Your task to perform on an android device: turn on the 24-hour format for clock Image 0: 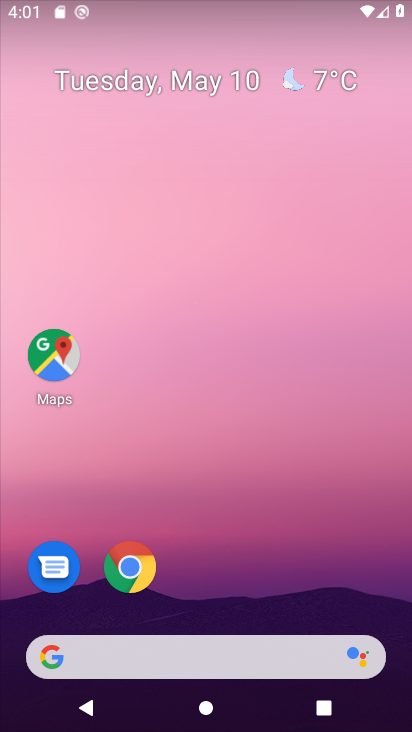
Step 0: drag from (246, 550) to (211, 20)
Your task to perform on an android device: turn on the 24-hour format for clock Image 1: 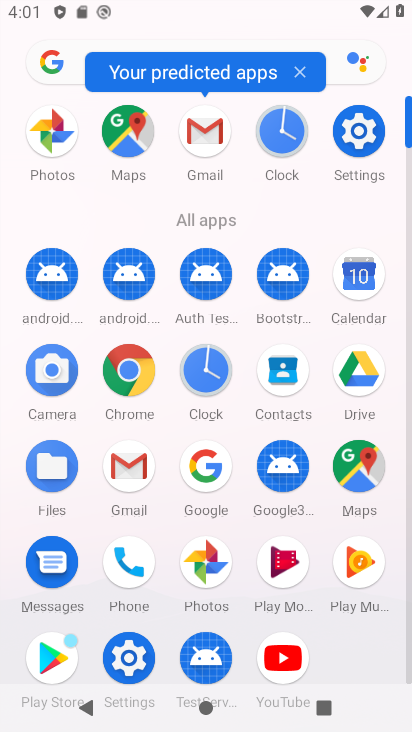
Step 1: click (281, 130)
Your task to perform on an android device: turn on the 24-hour format for clock Image 2: 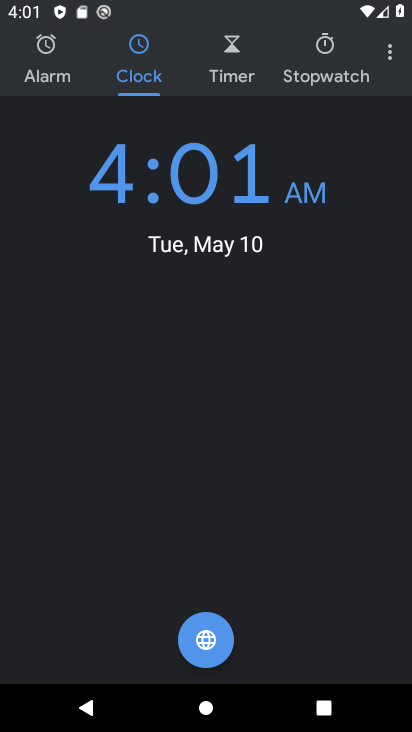
Step 2: click (392, 52)
Your task to perform on an android device: turn on the 24-hour format for clock Image 3: 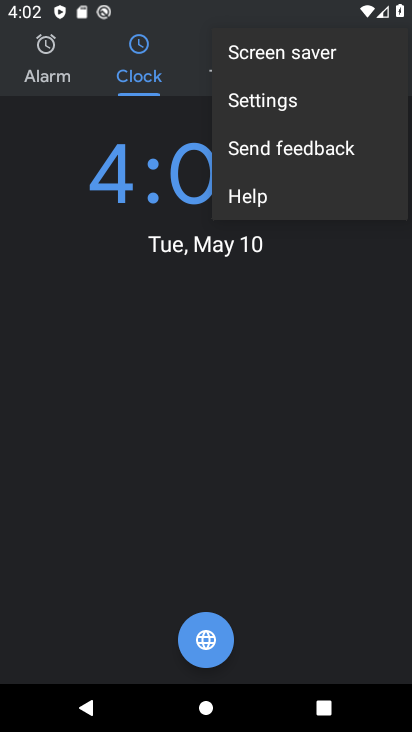
Step 3: click (289, 98)
Your task to perform on an android device: turn on the 24-hour format for clock Image 4: 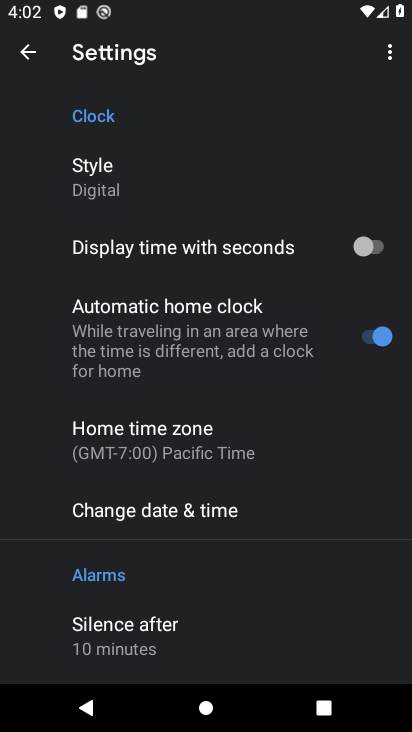
Step 4: click (147, 510)
Your task to perform on an android device: turn on the 24-hour format for clock Image 5: 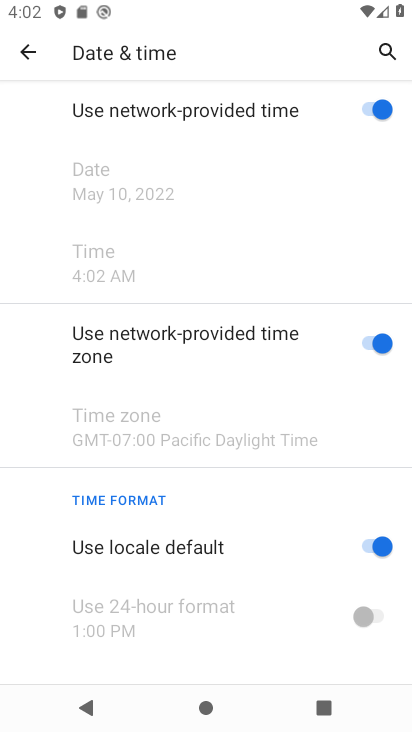
Step 5: click (379, 544)
Your task to perform on an android device: turn on the 24-hour format for clock Image 6: 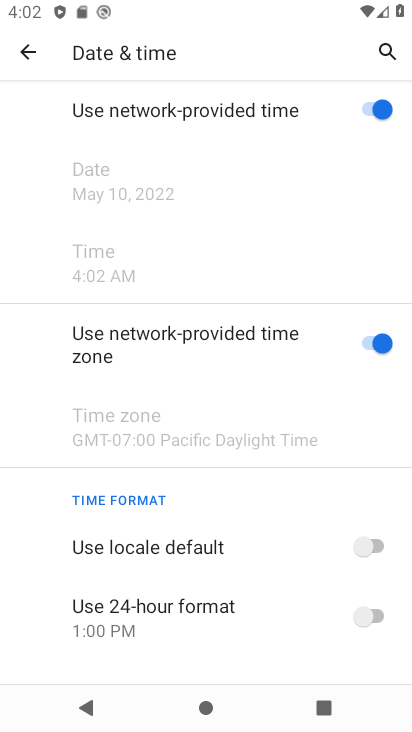
Step 6: click (369, 622)
Your task to perform on an android device: turn on the 24-hour format for clock Image 7: 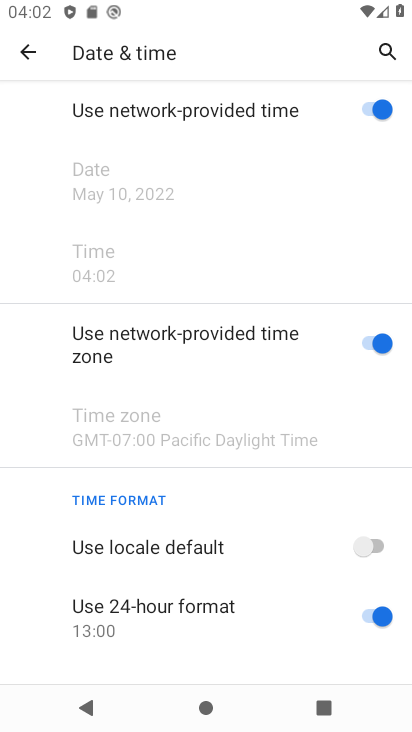
Step 7: task complete